Your task to perform on an android device: all mails in gmail Image 0: 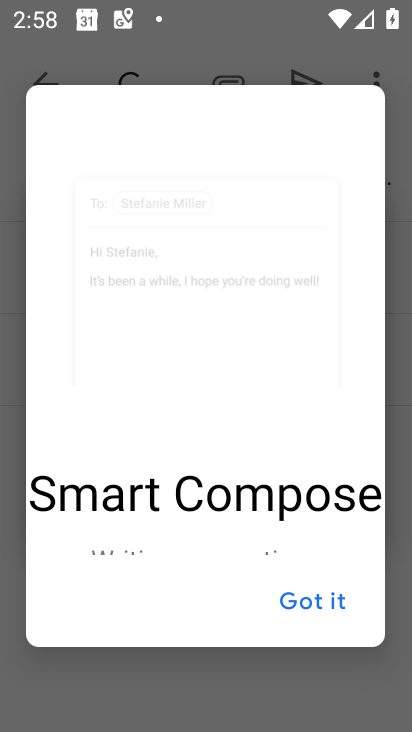
Step 0: press home button
Your task to perform on an android device: all mails in gmail Image 1: 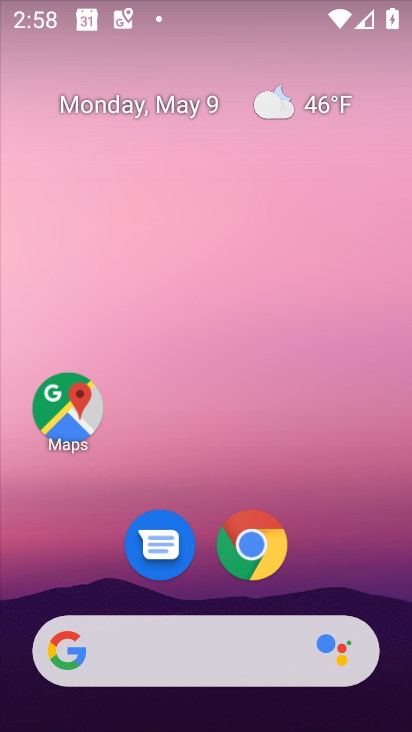
Step 1: drag from (204, 598) to (205, 231)
Your task to perform on an android device: all mails in gmail Image 2: 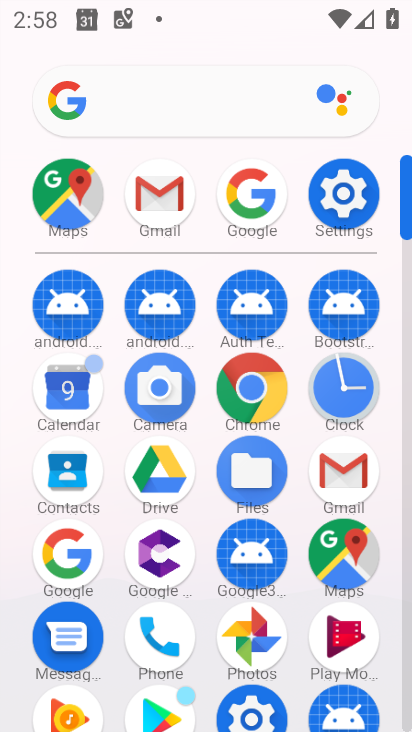
Step 2: click (326, 488)
Your task to perform on an android device: all mails in gmail Image 3: 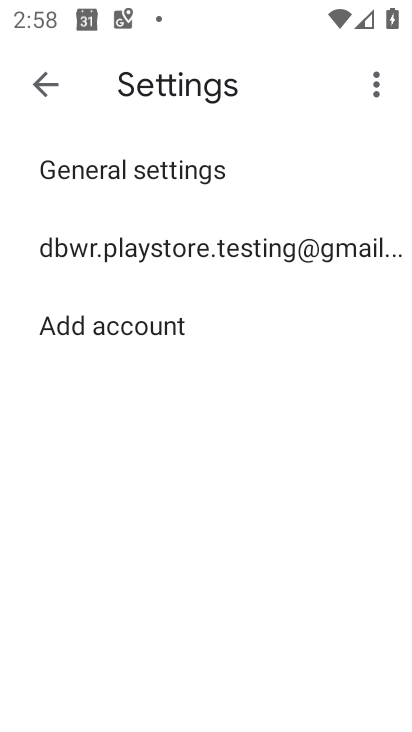
Step 3: click (184, 251)
Your task to perform on an android device: all mails in gmail Image 4: 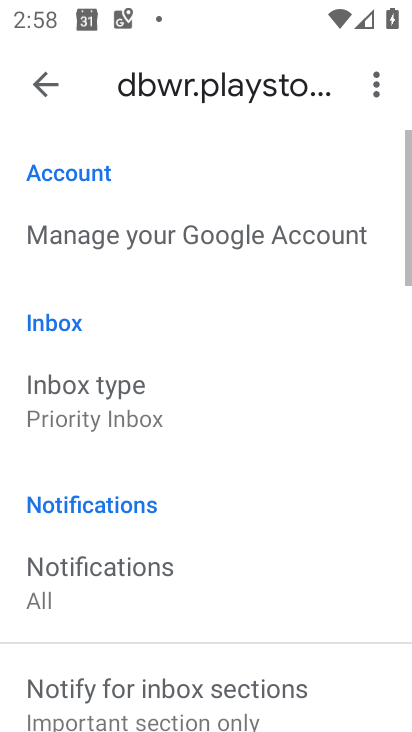
Step 4: click (33, 89)
Your task to perform on an android device: all mails in gmail Image 5: 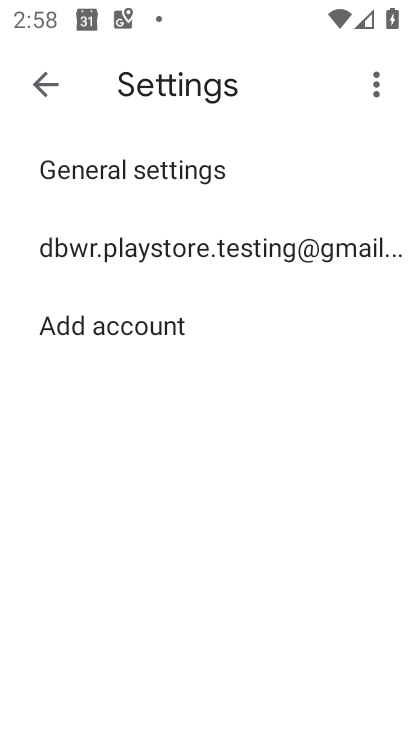
Step 5: click (33, 89)
Your task to perform on an android device: all mails in gmail Image 6: 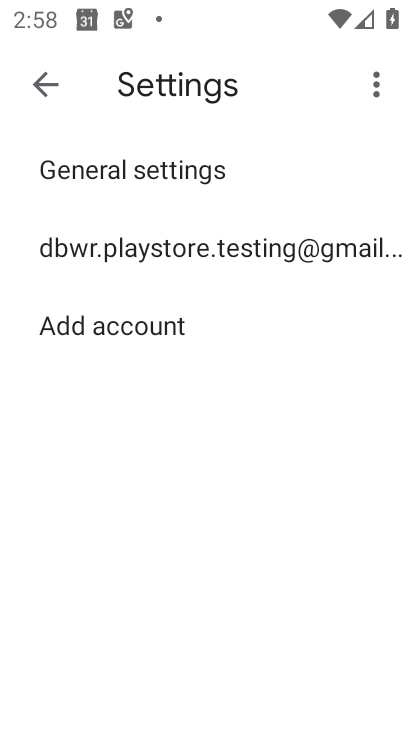
Step 6: click (33, 89)
Your task to perform on an android device: all mails in gmail Image 7: 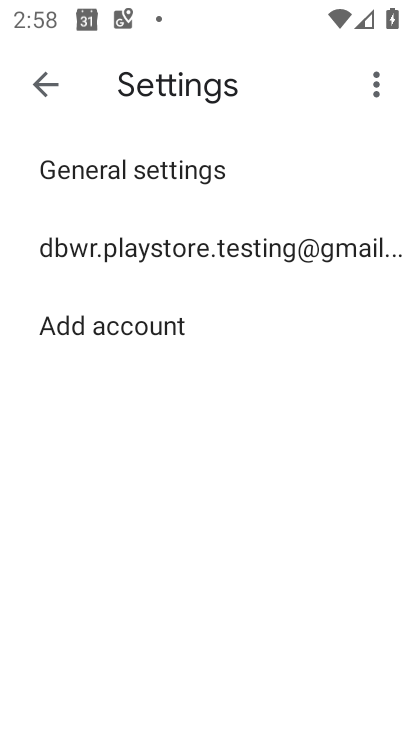
Step 7: click (33, 89)
Your task to perform on an android device: all mails in gmail Image 8: 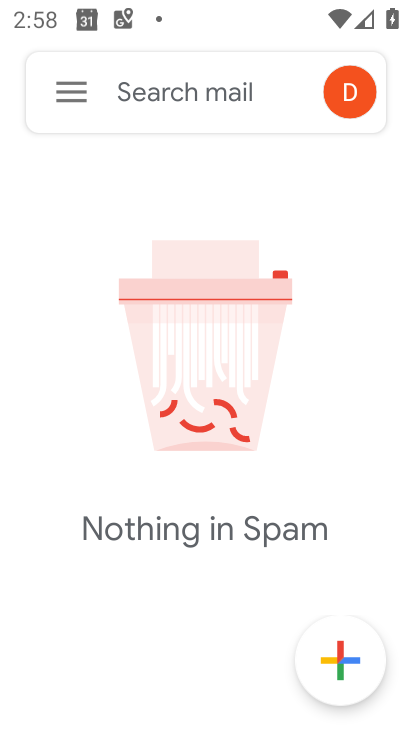
Step 8: click (47, 93)
Your task to perform on an android device: all mails in gmail Image 9: 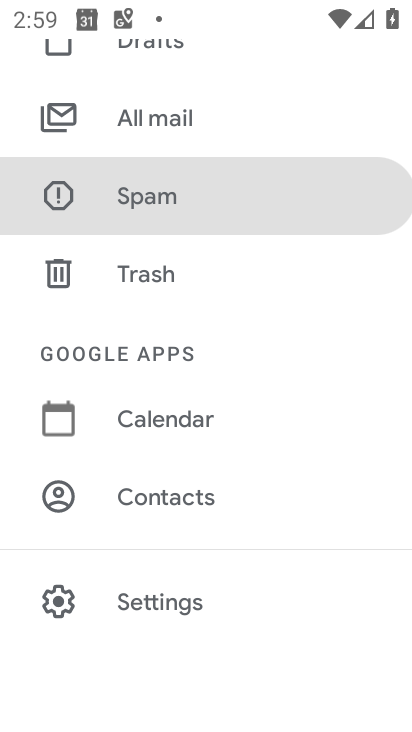
Step 9: drag from (216, 585) to (280, 453)
Your task to perform on an android device: all mails in gmail Image 10: 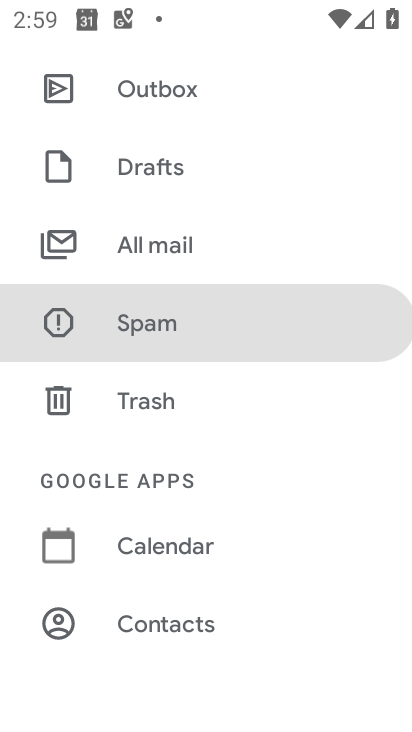
Step 10: drag from (243, 148) to (246, 372)
Your task to perform on an android device: all mails in gmail Image 11: 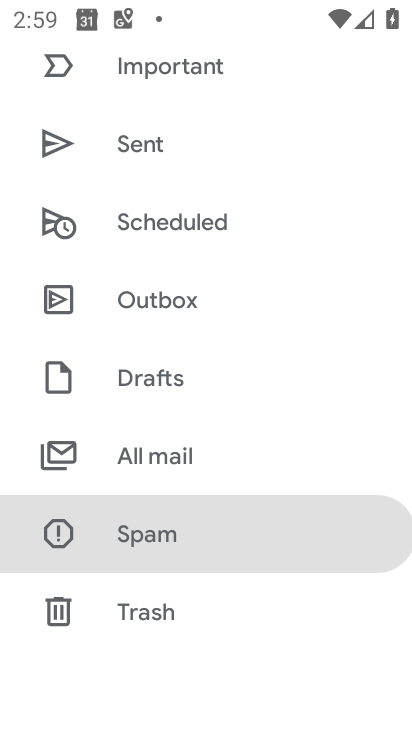
Step 11: drag from (211, 208) to (217, 427)
Your task to perform on an android device: all mails in gmail Image 12: 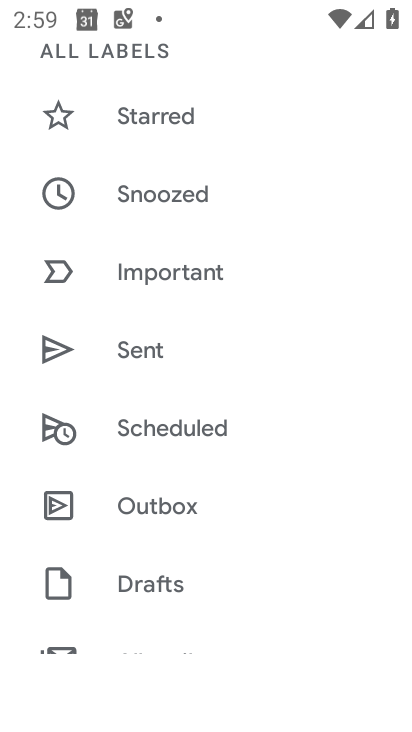
Step 12: drag from (182, 220) to (213, 512)
Your task to perform on an android device: all mails in gmail Image 13: 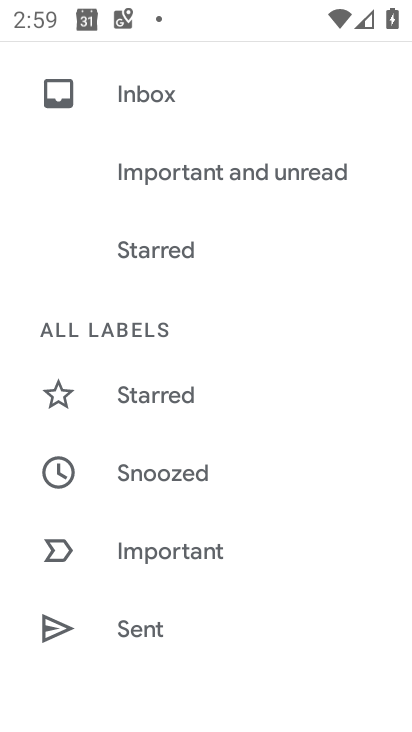
Step 13: drag from (181, 216) to (259, 191)
Your task to perform on an android device: all mails in gmail Image 14: 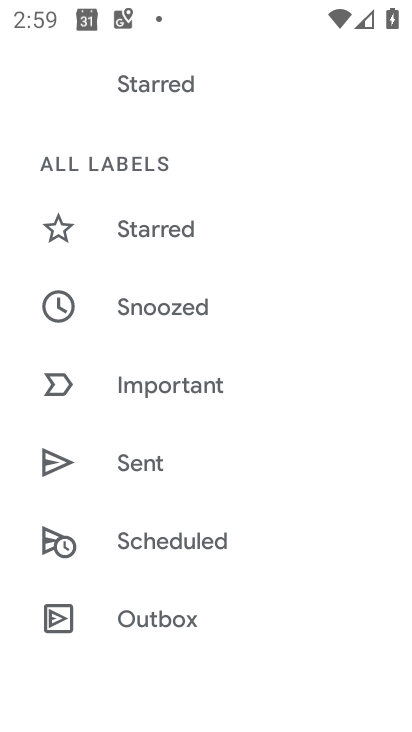
Step 14: drag from (243, 517) to (295, 276)
Your task to perform on an android device: all mails in gmail Image 15: 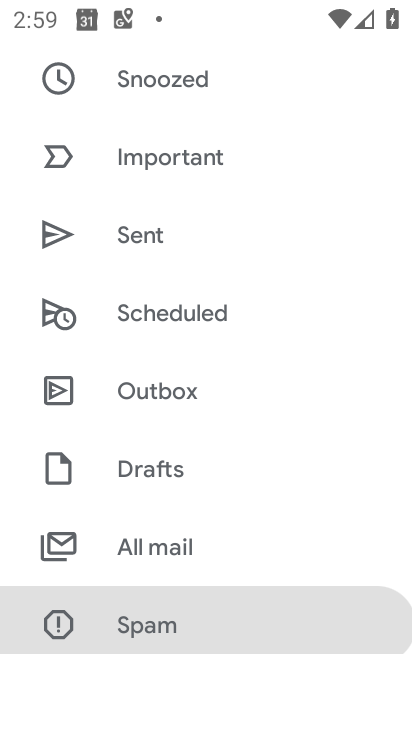
Step 15: click (204, 558)
Your task to perform on an android device: all mails in gmail Image 16: 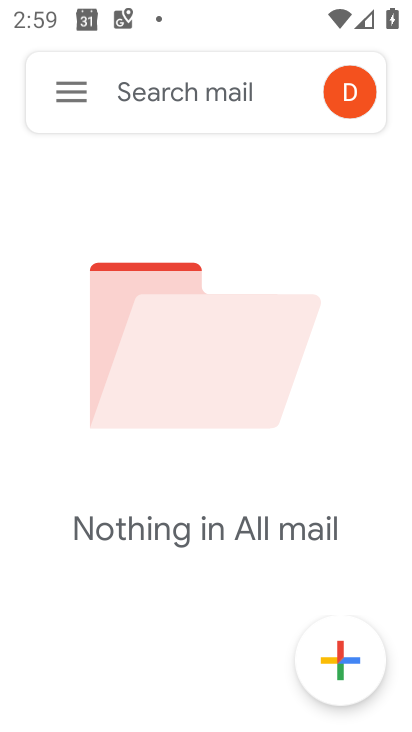
Step 16: task complete